Your task to perform on an android device: Open Chrome and go to the settings page Image 0: 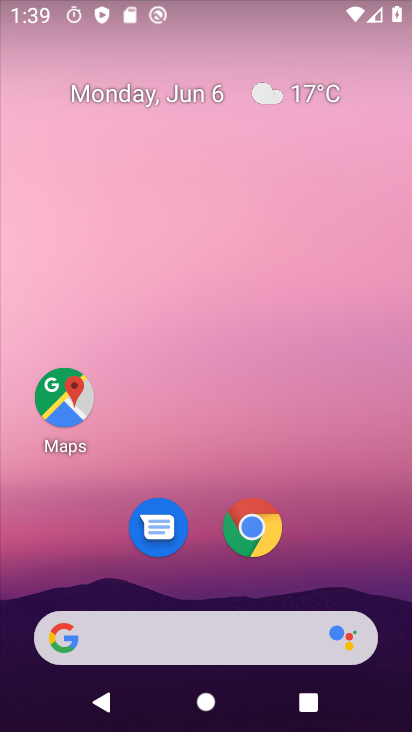
Step 0: click (249, 528)
Your task to perform on an android device: Open Chrome and go to the settings page Image 1: 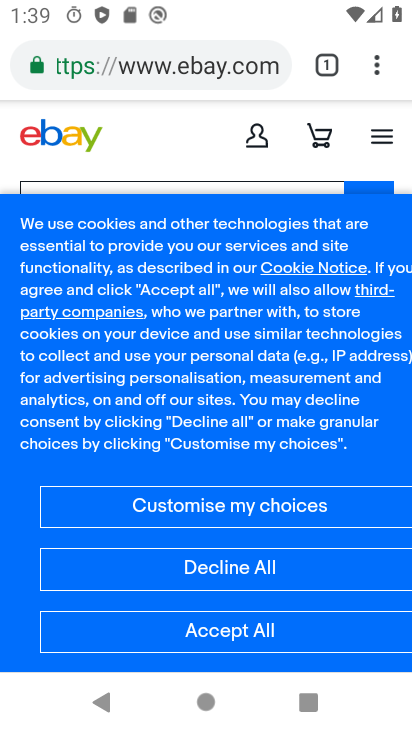
Step 1: click (376, 71)
Your task to perform on an android device: Open Chrome and go to the settings page Image 2: 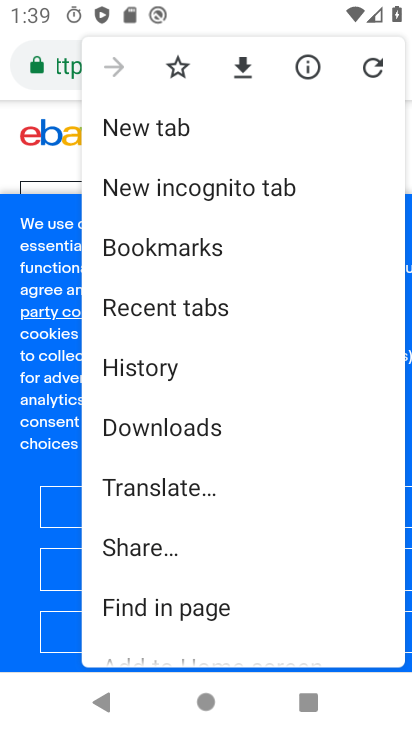
Step 2: drag from (192, 633) to (190, 56)
Your task to perform on an android device: Open Chrome and go to the settings page Image 3: 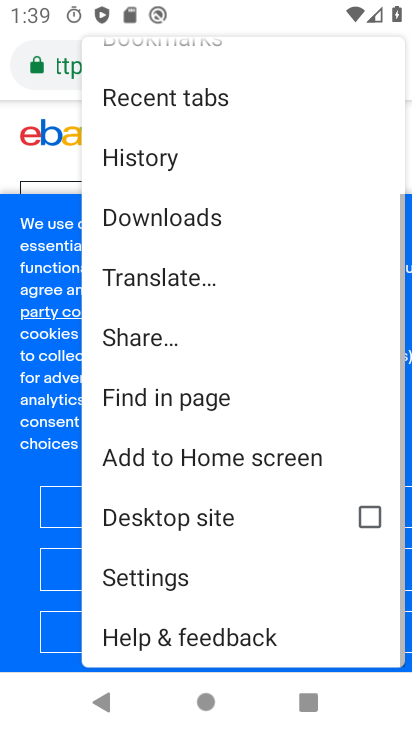
Step 3: click (148, 572)
Your task to perform on an android device: Open Chrome and go to the settings page Image 4: 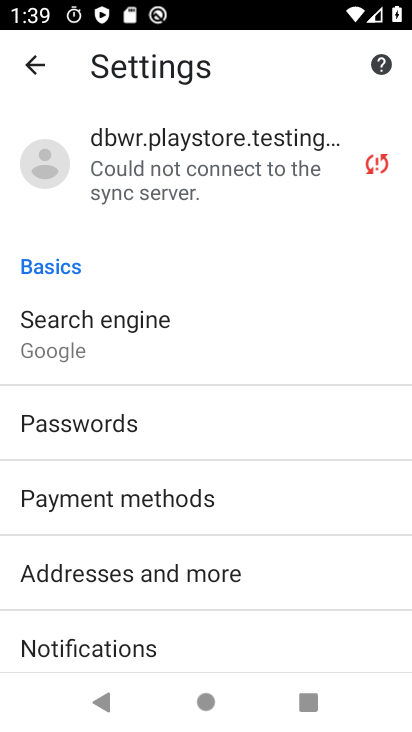
Step 4: task complete